Your task to perform on an android device: Set the phone to "Do not disturb". Image 0: 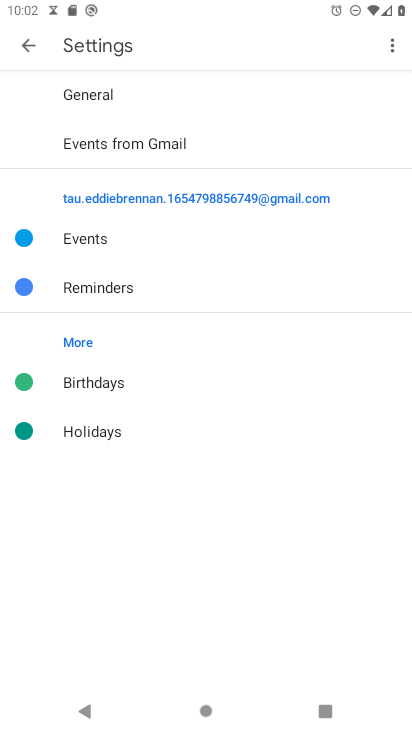
Step 0: press home button
Your task to perform on an android device: Set the phone to "Do not disturb". Image 1: 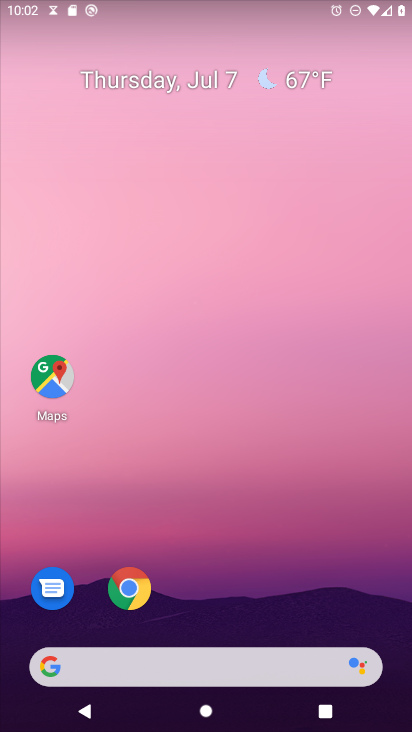
Step 1: drag from (191, 617) to (223, 105)
Your task to perform on an android device: Set the phone to "Do not disturb". Image 2: 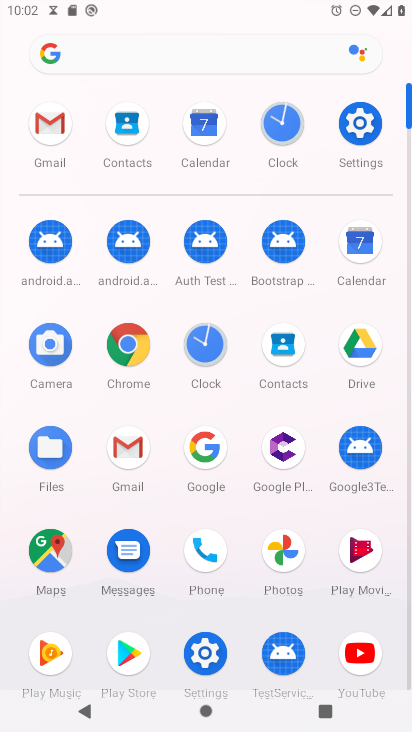
Step 2: click (359, 116)
Your task to perform on an android device: Set the phone to "Do not disturb". Image 3: 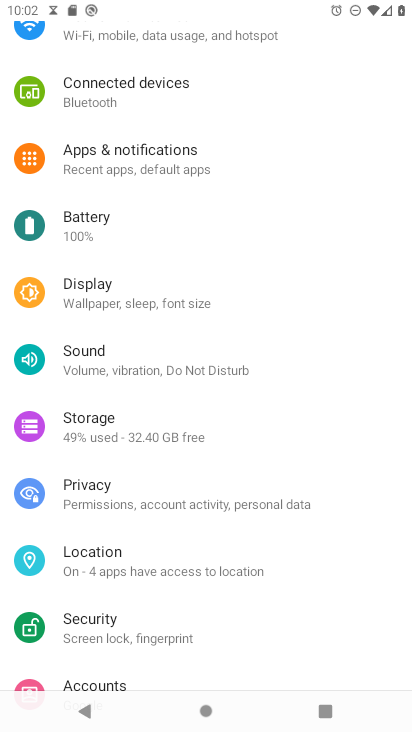
Step 3: click (224, 376)
Your task to perform on an android device: Set the phone to "Do not disturb". Image 4: 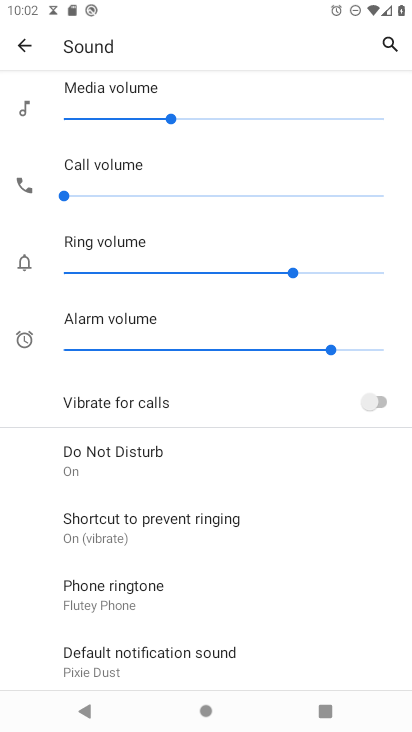
Step 4: click (125, 456)
Your task to perform on an android device: Set the phone to "Do not disturb". Image 5: 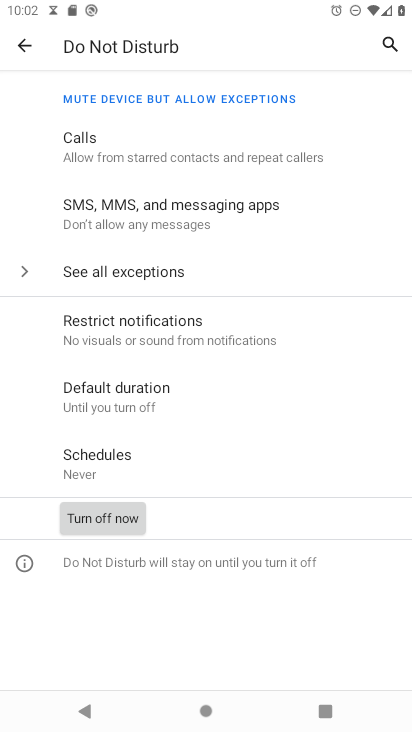
Step 5: task complete